Your task to perform on an android device: change the upload size in google photos Image 0: 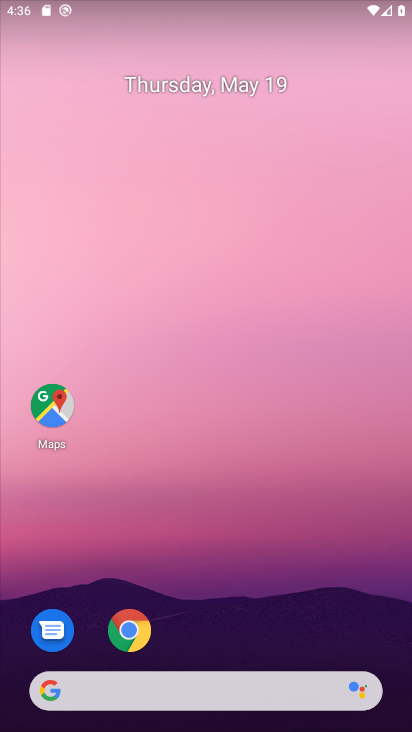
Step 0: drag from (213, 496) to (211, 31)
Your task to perform on an android device: change the upload size in google photos Image 1: 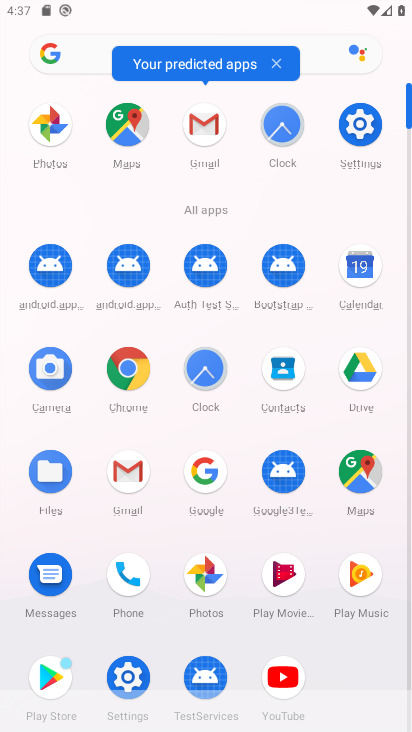
Step 1: drag from (12, 512) to (29, 183)
Your task to perform on an android device: change the upload size in google photos Image 2: 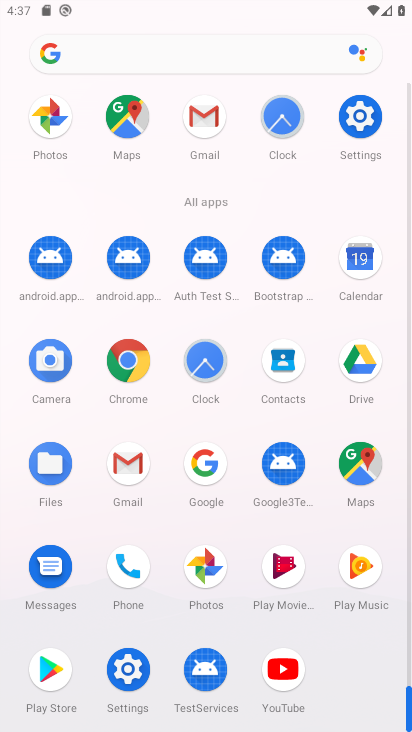
Step 2: click (208, 567)
Your task to perform on an android device: change the upload size in google photos Image 3: 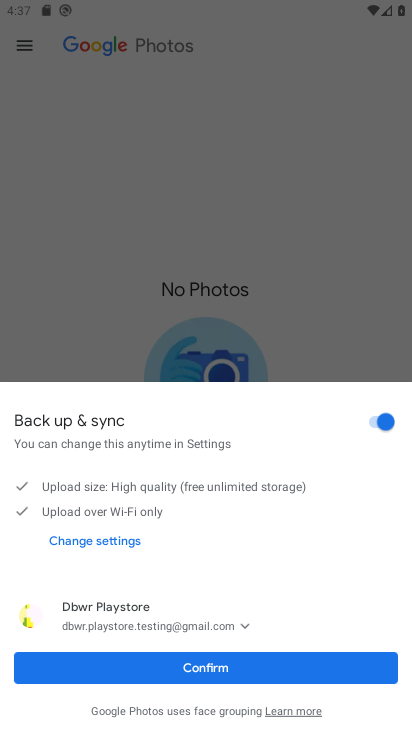
Step 3: click (190, 679)
Your task to perform on an android device: change the upload size in google photos Image 4: 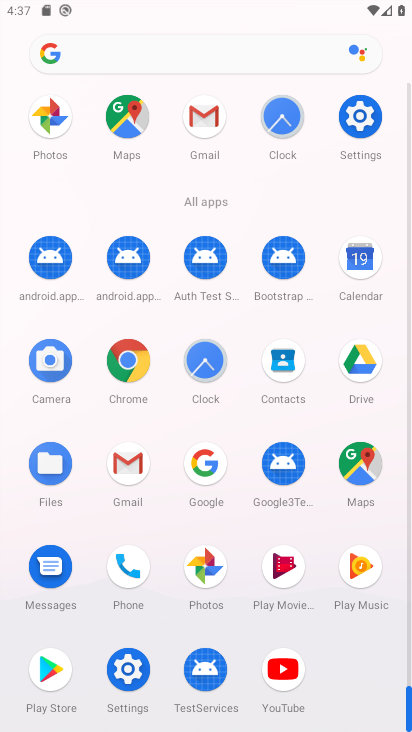
Step 4: click (206, 563)
Your task to perform on an android device: change the upload size in google photos Image 5: 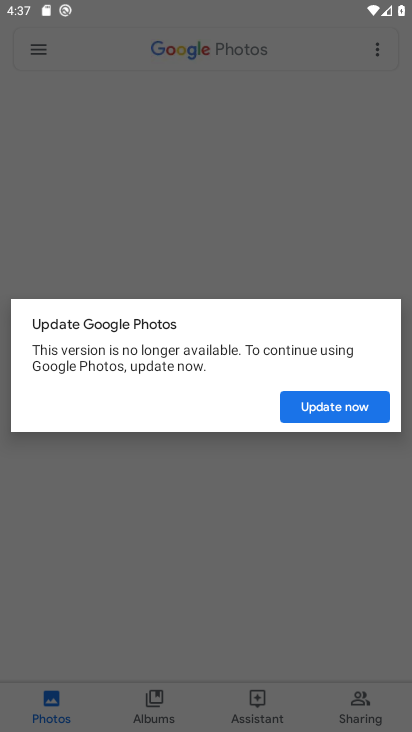
Step 5: click (315, 407)
Your task to perform on an android device: change the upload size in google photos Image 6: 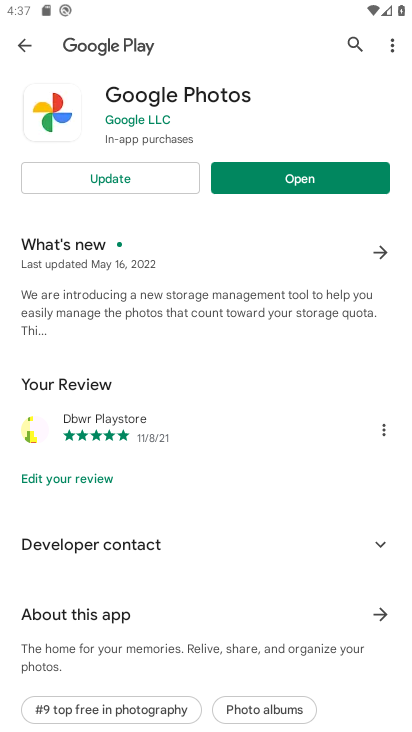
Step 6: click (154, 172)
Your task to perform on an android device: change the upload size in google photos Image 7: 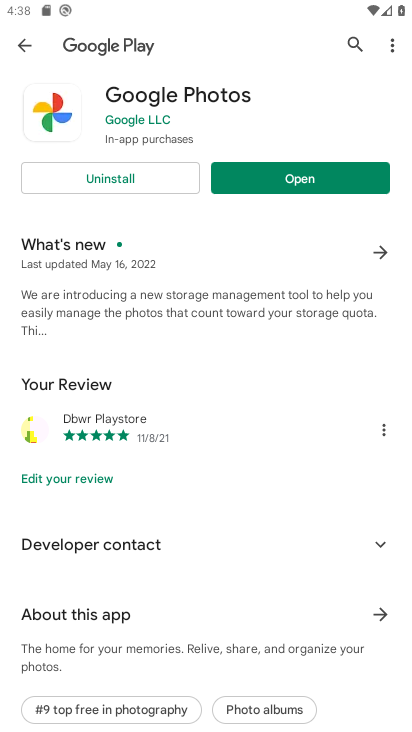
Step 7: click (265, 168)
Your task to perform on an android device: change the upload size in google photos Image 8: 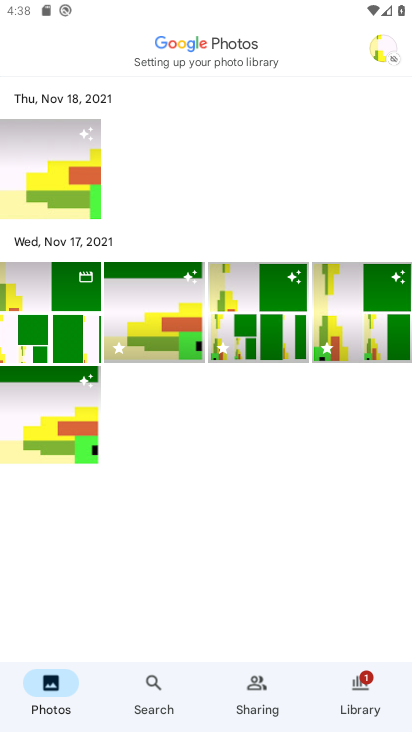
Step 8: click (381, 52)
Your task to perform on an android device: change the upload size in google photos Image 9: 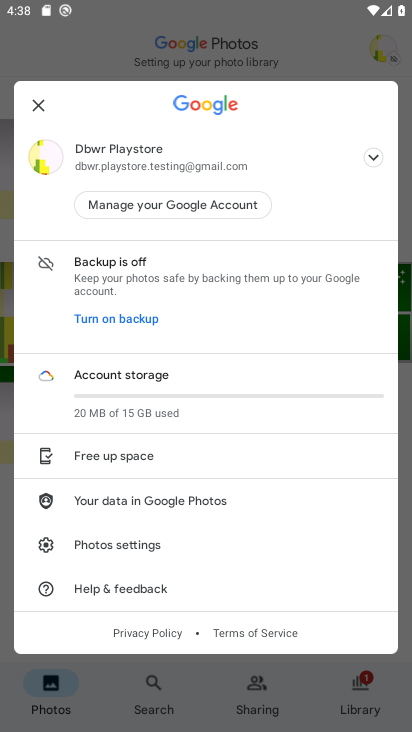
Step 9: click (110, 545)
Your task to perform on an android device: change the upload size in google photos Image 10: 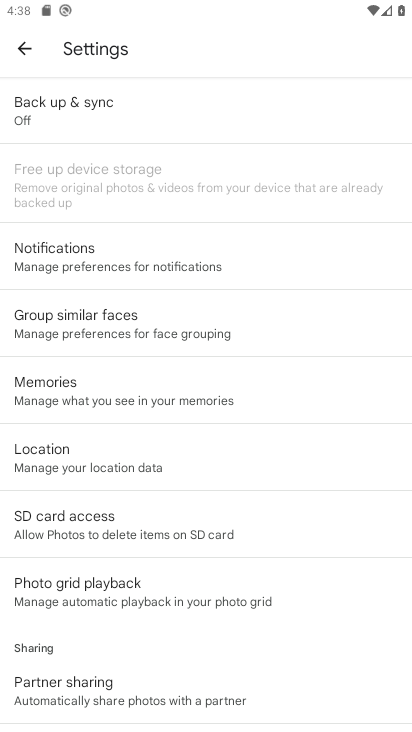
Step 10: click (132, 246)
Your task to perform on an android device: change the upload size in google photos Image 11: 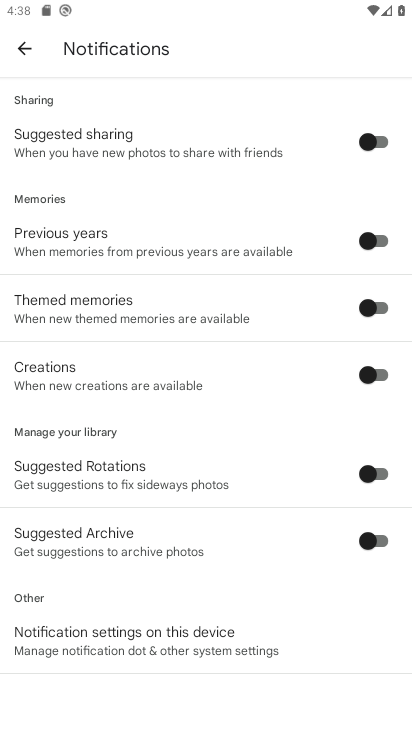
Step 11: drag from (152, 504) to (190, 55)
Your task to perform on an android device: change the upload size in google photos Image 12: 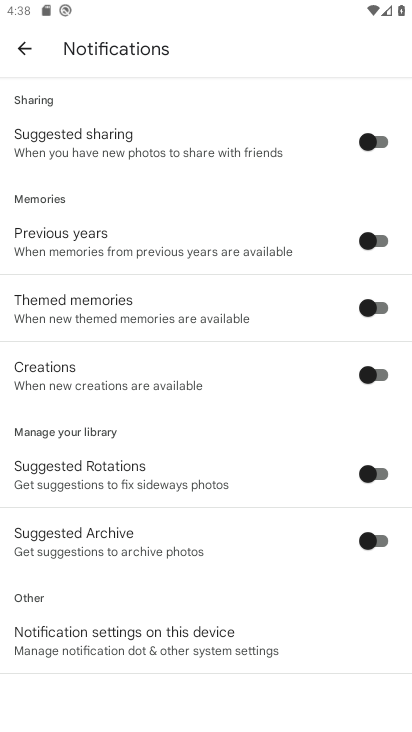
Step 12: click (21, 44)
Your task to perform on an android device: change the upload size in google photos Image 13: 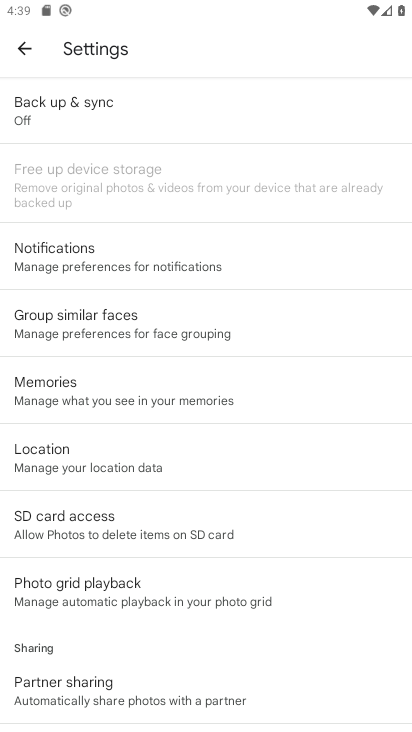
Step 13: drag from (146, 575) to (191, 126)
Your task to perform on an android device: change the upload size in google photos Image 14: 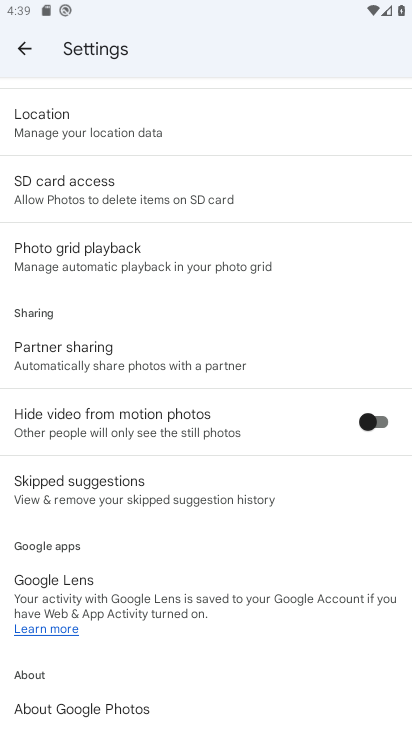
Step 14: drag from (203, 151) to (213, 644)
Your task to perform on an android device: change the upload size in google photos Image 15: 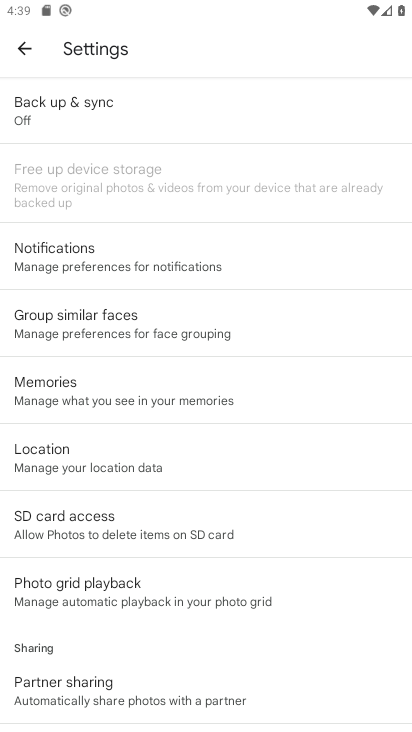
Step 15: click (162, 256)
Your task to perform on an android device: change the upload size in google photos Image 16: 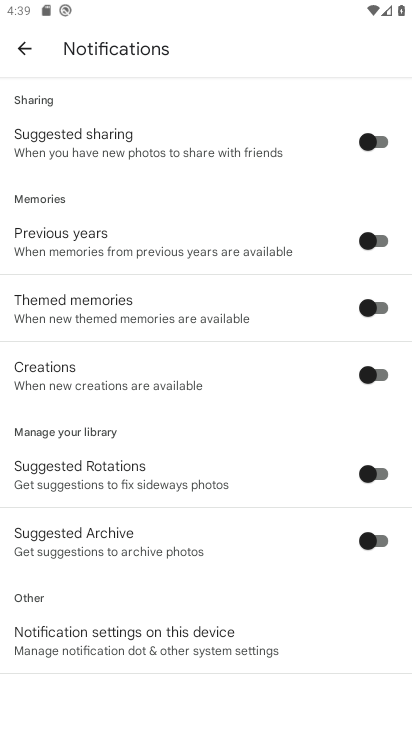
Step 16: drag from (78, 634) to (117, 125)
Your task to perform on an android device: change the upload size in google photos Image 17: 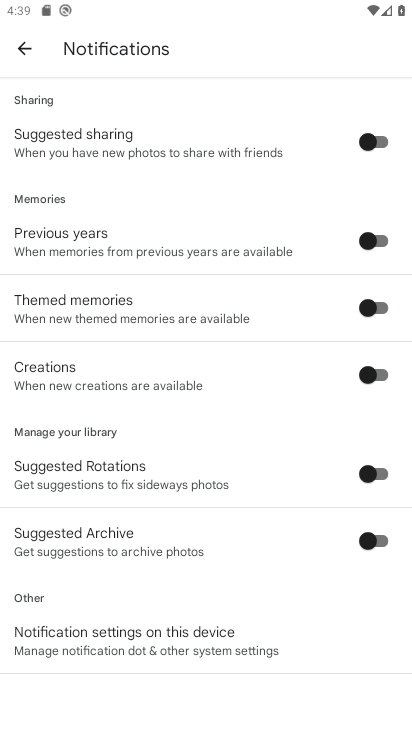
Step 17: click (10, 44)
Your task to perform on an android device: change the upload size in google photos Image 18: 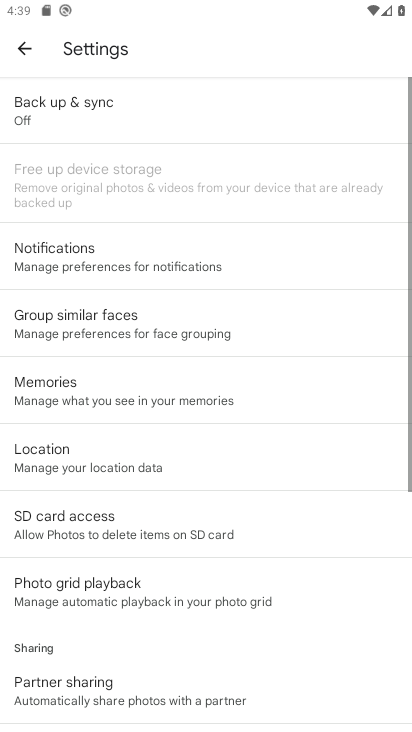
Step 18: click (66, 83)
Your task to perform on an android device: change the upload size in google photos Image 19: 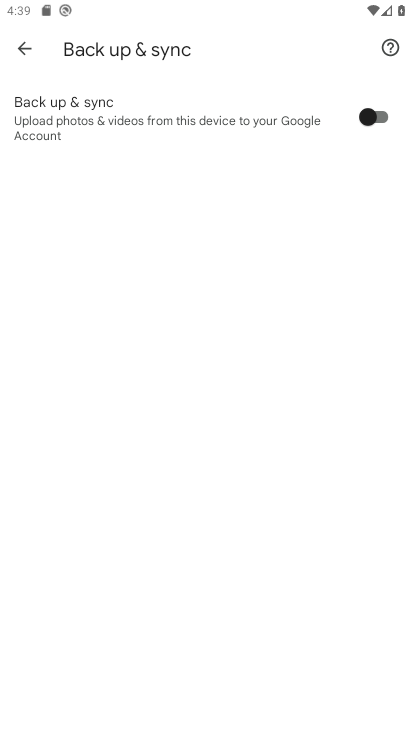
Step 19: click (8, 47)
Your task to perform on an android device: change the upload size in google photos Image 20: 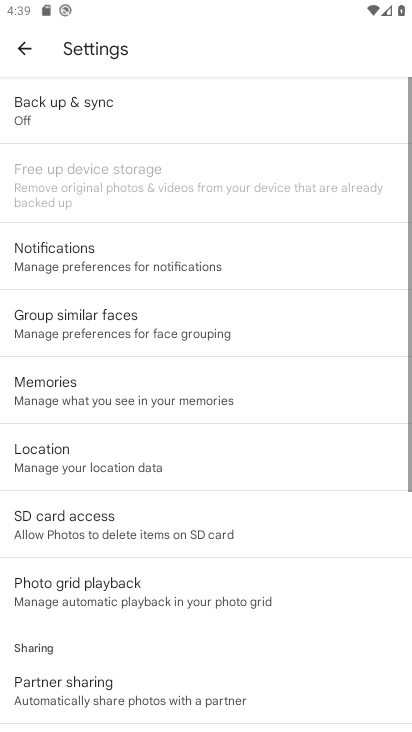
Step 20: drag from (129, 543) to (194, 106)
Your task to perform on an android device: change the upload size in google photos Image 21: 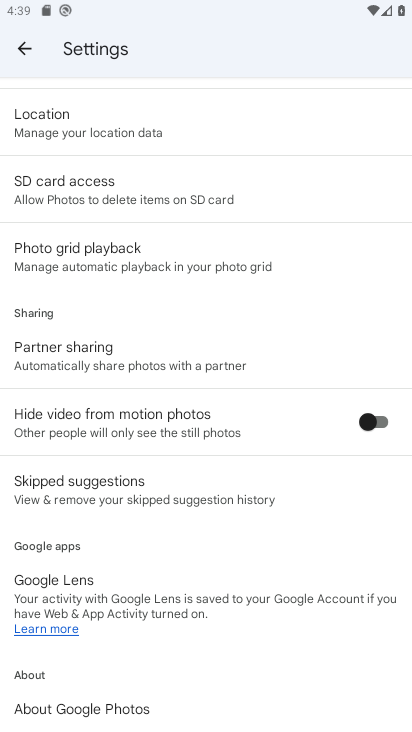
Step 21: drag from (100, 619) to (162, 274)
Your task to perform on an android device: change the upload size in google photos Image 22: 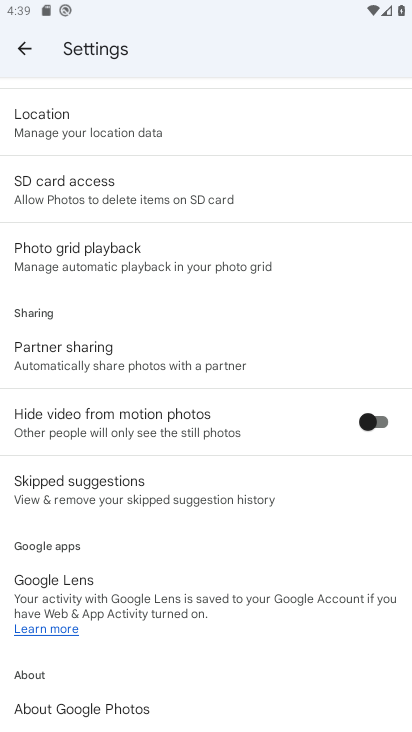
Step 22: drag from (174, 268) to (169, 570)
Your task to perform on an android device: change the upload size in google photos Image 23: 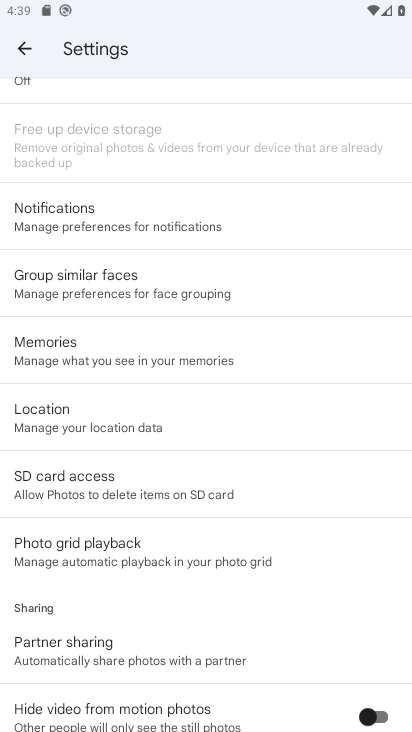
Step 23: drag from (135, 234) to (135, 603)
Your task to perform on an android device: change the upload size in google photos Image 24: 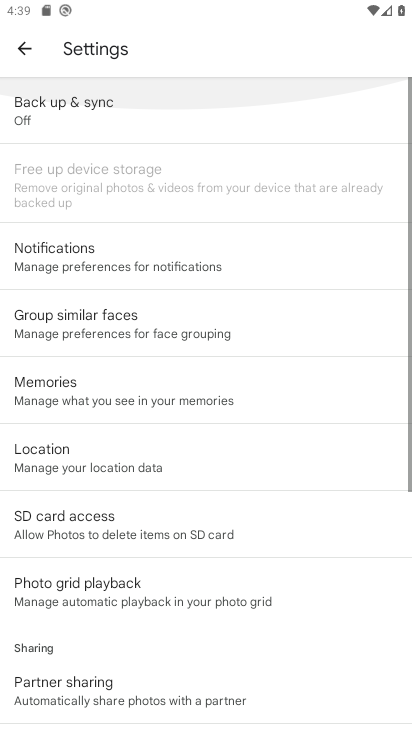
Step 24: drag from (137, 588) to (195, 128)
Your task to perform on an android device: change the upload size in google photos Image 25: 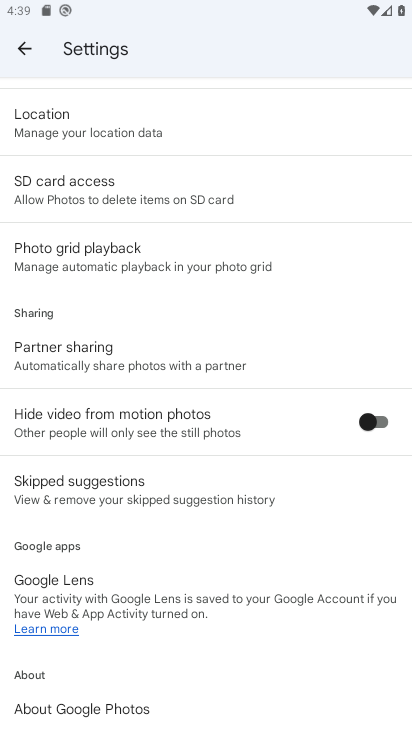
Step 25: drag from (191, 259) to (199, 699)
Your task to perform on an android device: change the upload size in google photos Image 26: 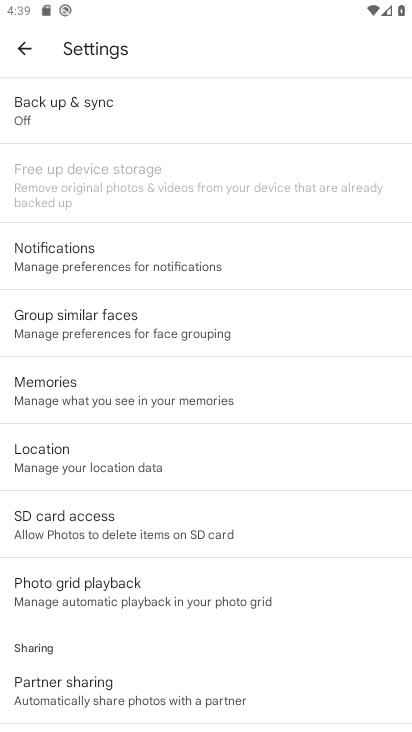
Step 26: drag from (192, 218) to (182, 677)
Your task to perform on an android device: change the upload size in google photos Image 27: 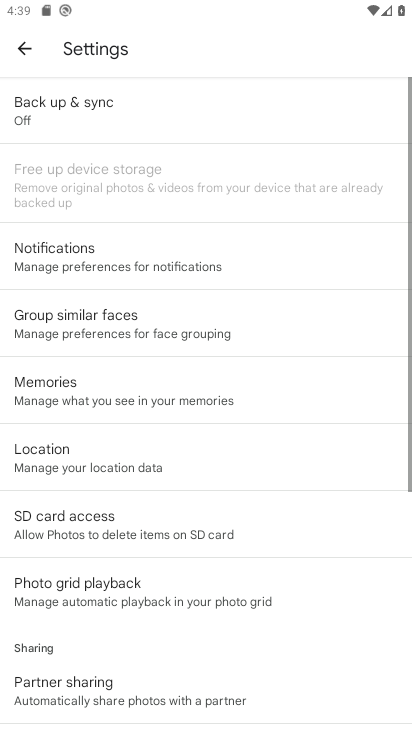
Step 27: click (22, 42)
Your task to perform on an android device: change the upload size in google photos Image 28: 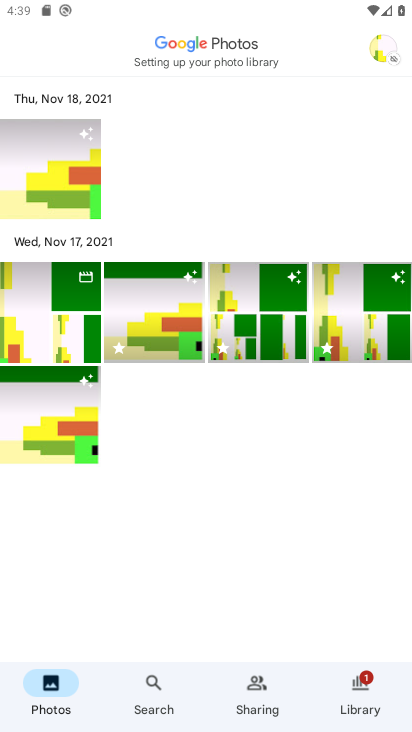
Step 28: task complete